Your task to perform on an android device: turn off data saver in the chrome app Image 0: 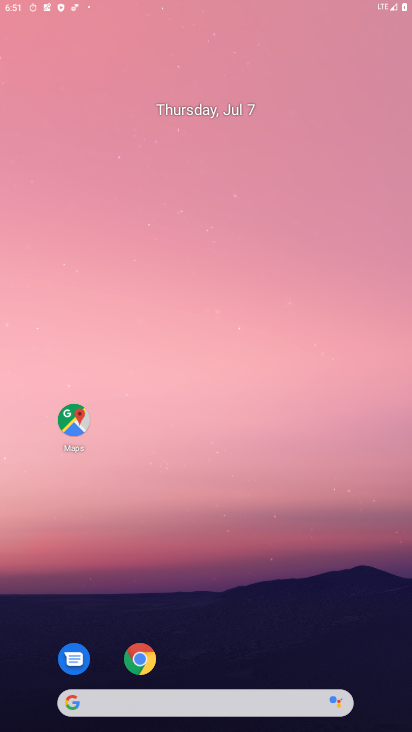
Step 0: drag from (340, 8) to (262, 8)
Your task to perform on an android device: turn off data saver in the chrome app Image 1: 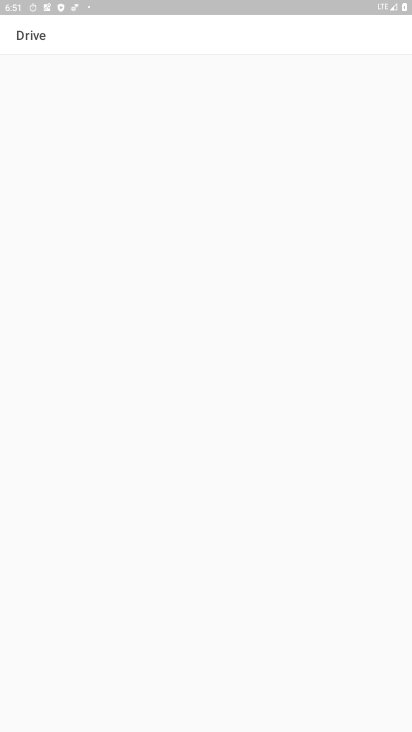
Step 1: press home button
Your task to perform on an android device: turn off data saver in the chrome app Image 2: 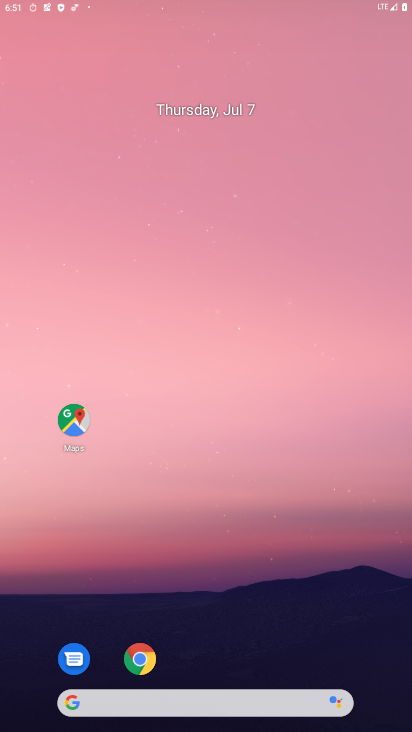
Step 2: drag from (384, 656) to (283, 58)
Your task to perform on an android device: turn off data saver in the chrome app Image 3: 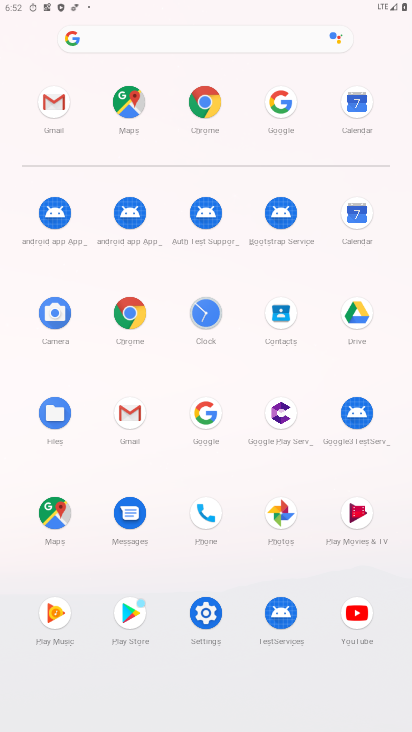
Step 3: click (125, 316)
Your task to perform on an android device: turn off data saver in the chrome app Image 4: 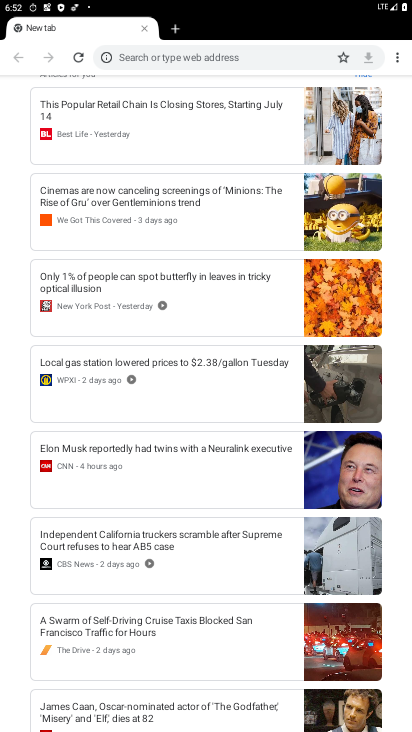
Step 4: click (402, 50)
Your task to perform on an android device: turn off data saver in the chrome app Image 5: 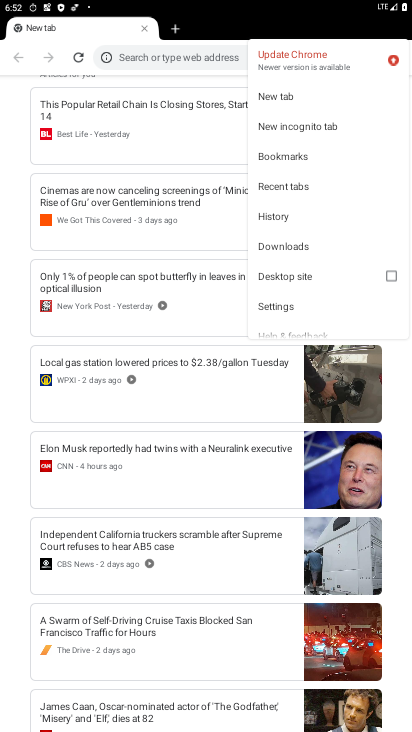
Step 5: click (264, 303)
Your task to perform on an android device: turn off data saver in the chrome app Image 6: 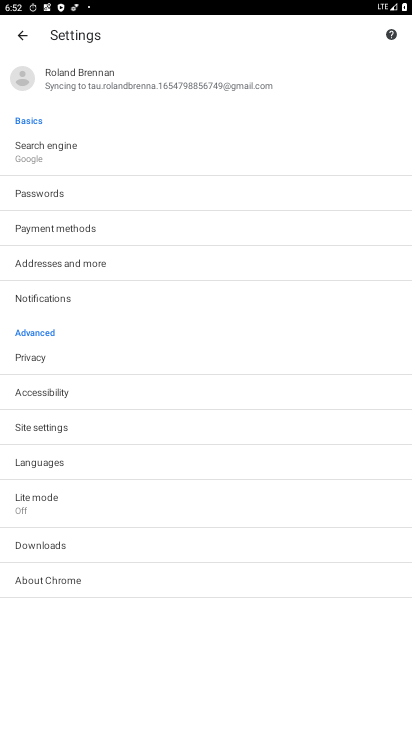
Step 6: click (26, 500)
Your task to perform on an android device: turn off data saver in the chrome app Image 7: 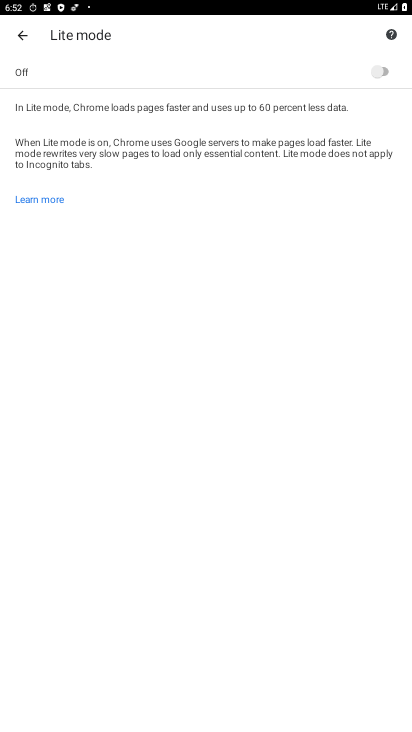
Step 7: task complete